Your task to perform on an android device: Show me popular games on the Play Store Image 0: 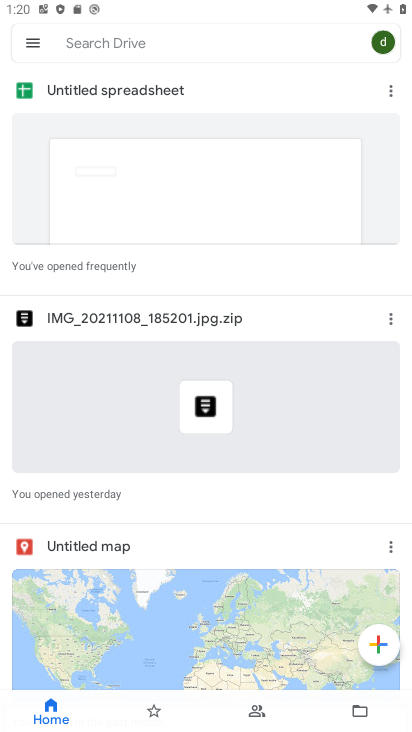
Step 0: press home button
Your task to perform on an android device: Show me popular games on the Play Store Image 1: 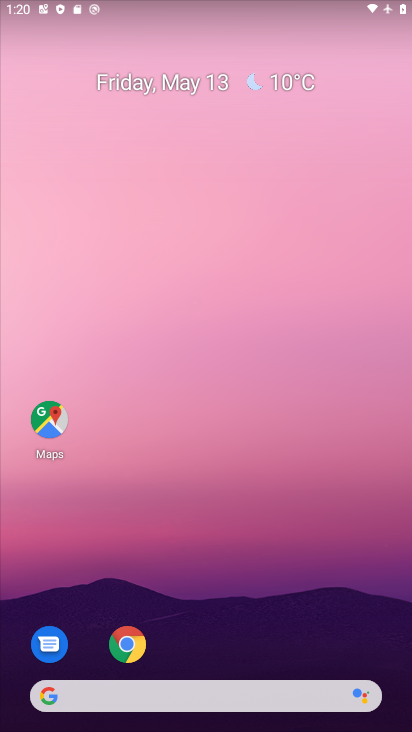
Step 1: drag from (200, 730) to (202, 146)
Your task to perform on an android device: Show me popular games on the Play Store Image 2: 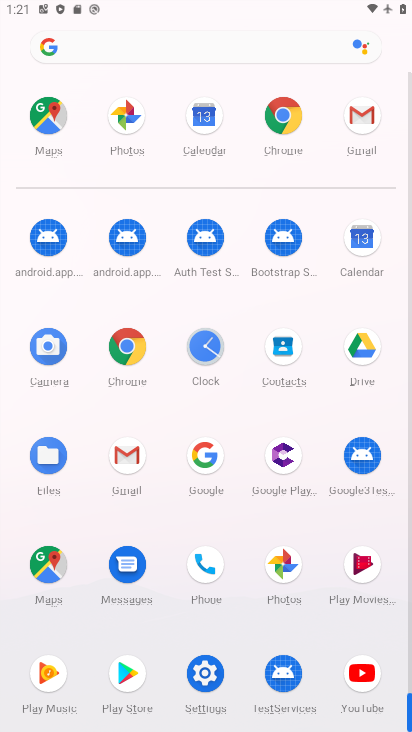
Step 2: click (131, 667)
Your task to perform on an android device: Show me popular games on the Play Store Image 3: 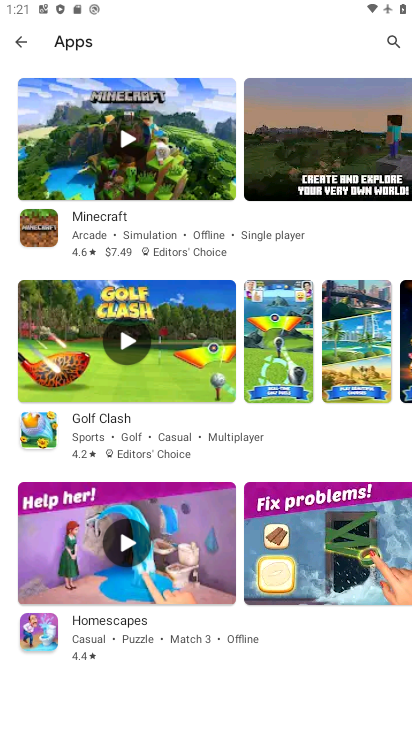
Step 3: drag from (119, 123) to (128, 456)
Your task to perform on an android device: Show me popular games on the Play Store Image 4: 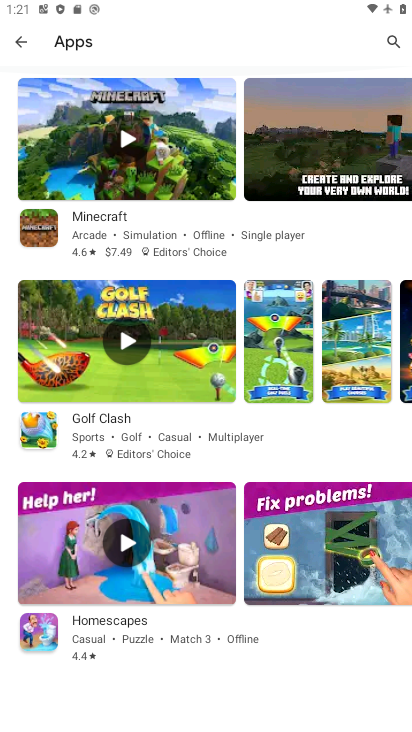
Step 4: click (22, 42)
Your task to perform on an android device: Show me popular games on the Play Store Image 5: 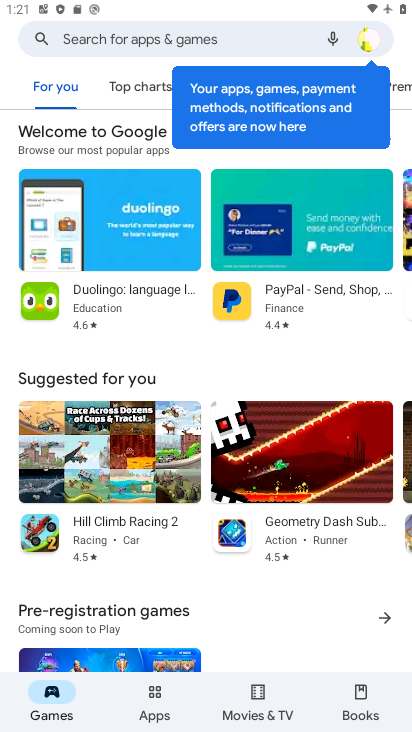
Step 5: drag from (199, 631) to (200, 275)
Your task to perform on an android device: Show me popular games on the Play Store Image 6: 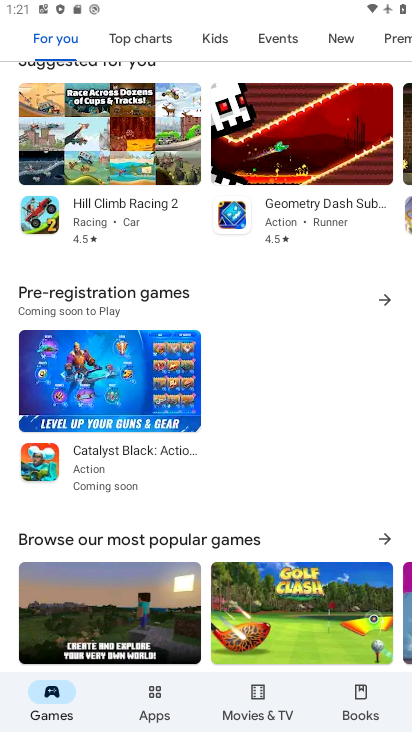
Step 6: click (294, 538)
Your task to perform on an android device: Show me popular games on the Play Store Image 7: 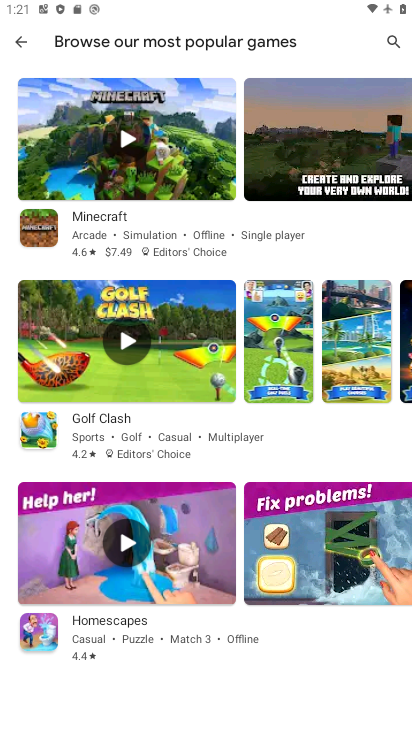
Step 7: task complete